Your task to perform on an android device: Go to sound settings Image 0: 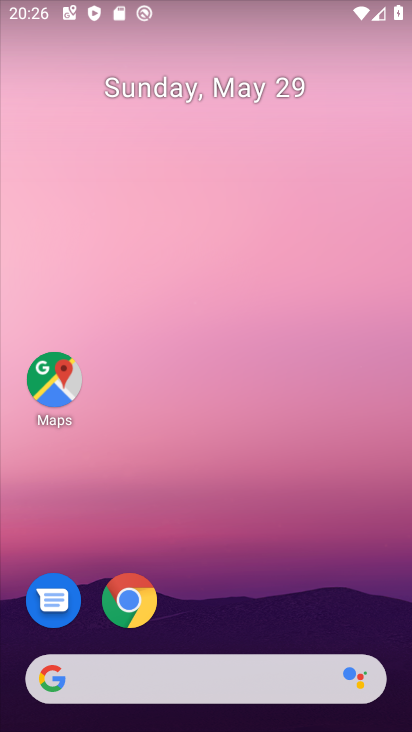
Step 0: drag from (376, 550) to (365, 178)
Your task to perform on an android device: Go to sound settings Image 1: 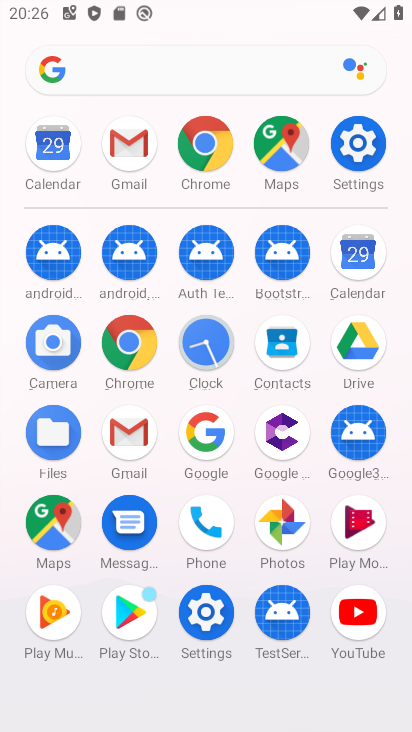
Step 1: click (201, 614)
Your task to perform on an android device: Go to sound settings Image 2: 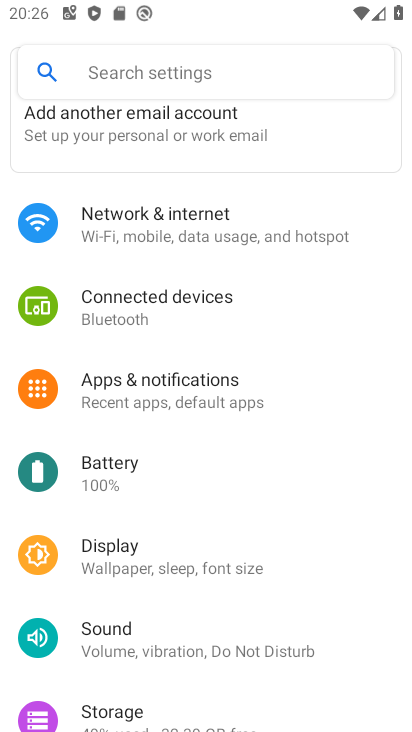
Step 2: click (183, 646)
Your task to perform on an android device: Go to sound settings Image 3: 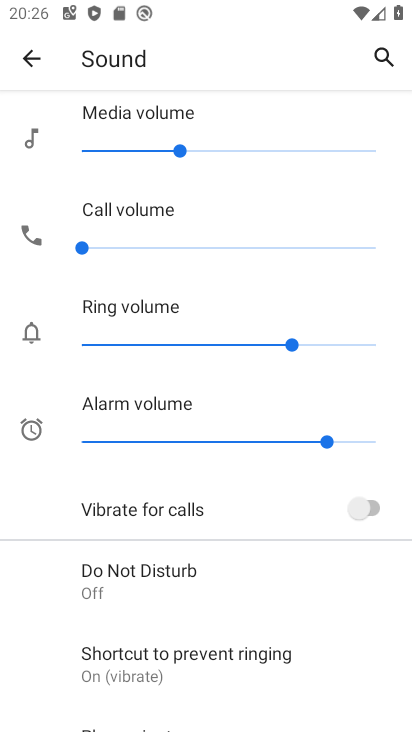
Step 3: task complete